Your task to perform on an android device: turn on improve location accuracy Image 0: 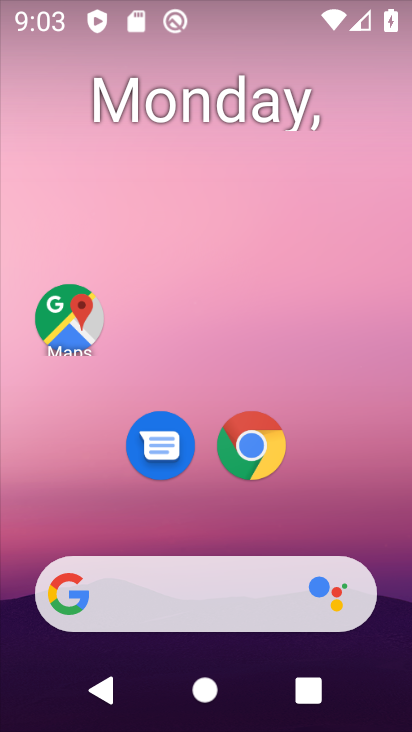
Step 0: drag from (396, 596) to (292, 39)
Your task to perform on an android device: turn on improve location accuracy Image 1: 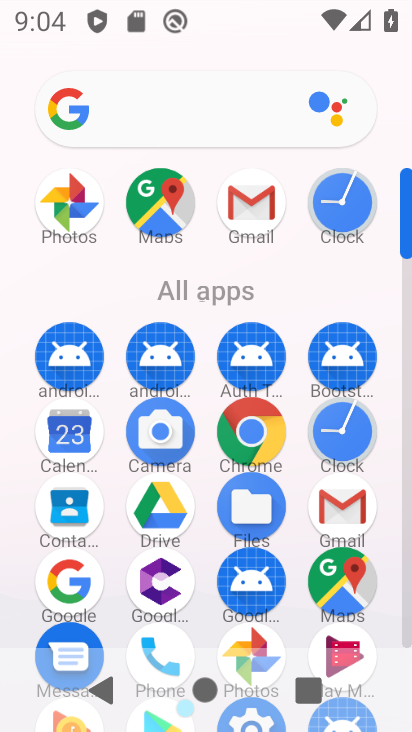
Step 1: drag from (296, 656) to (296, 176)
Your task to perform on an android device: turn on improve location accuracy Image 2: 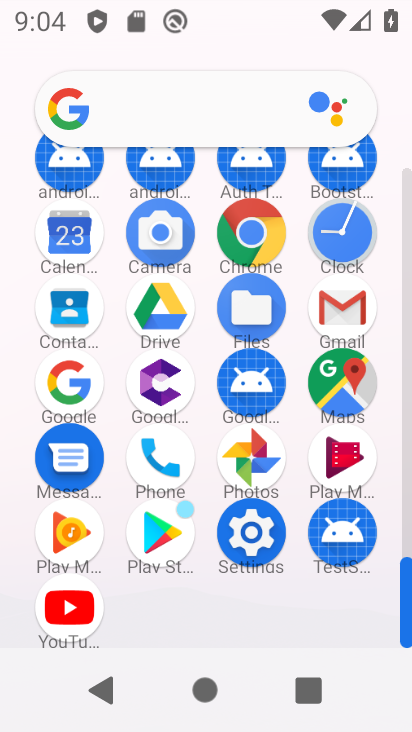
Step 2: click (247, 548)
Your task to perform on an android device: turn on improve location accuracy Image 3: 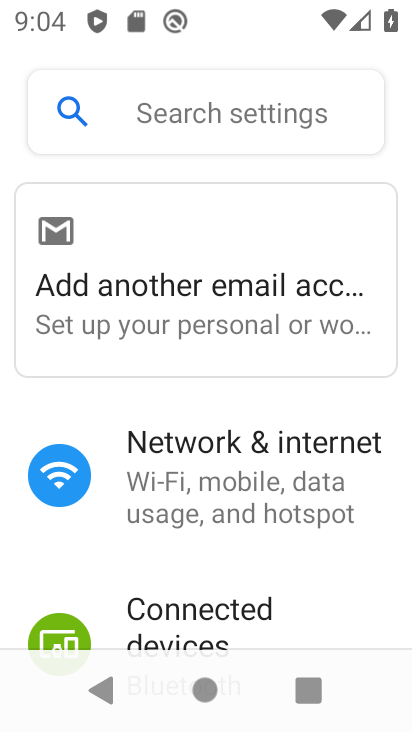
Step 3: drag from (169, 581) to (182, 91)
Your task to perform on an android device: turn on improve location accuracy Image 4: 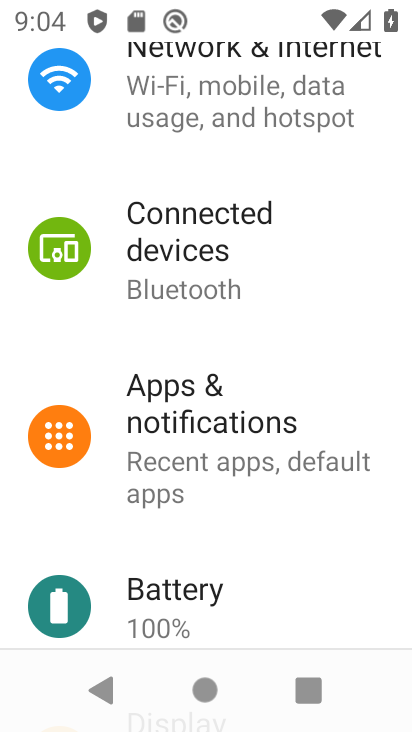
Step 4: drag from (205, 599) to (210, 113)
Your task to perform on an android device: turn on improve location accuracy Image 5: 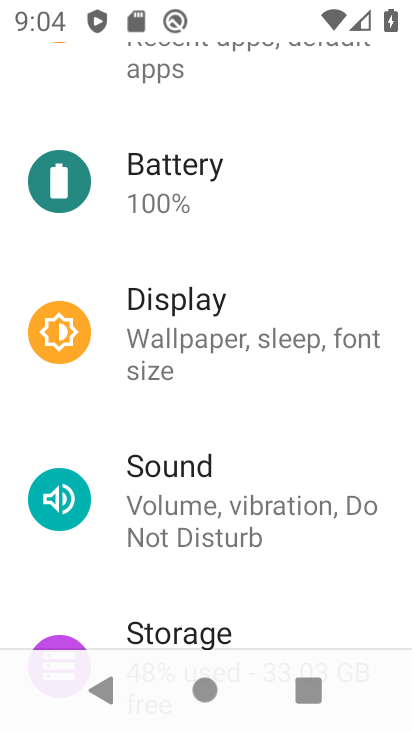
Step 5: drag from (170, 611) to (239, 130)
Your task to perform on an android device: turn on improve location accuracy Image 6: 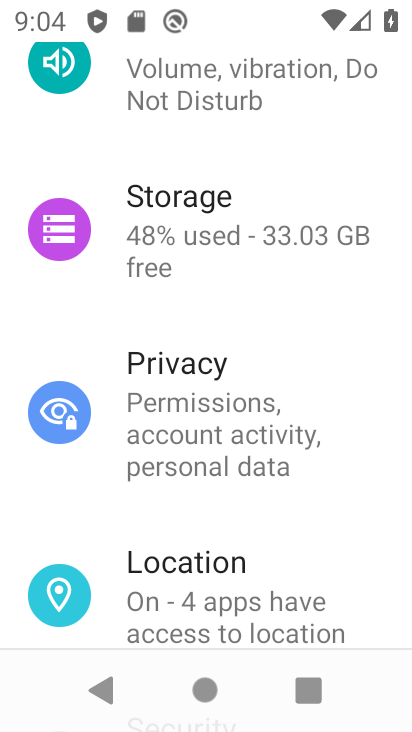
Step 6: click (254, 607)
Your task to perform on an android device: turn on improve location accuracy Image 7: 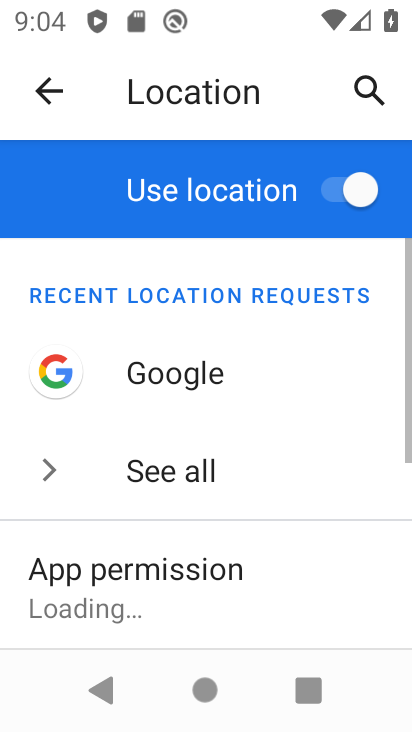
Step 7: drag from (202, 634) to (246, 110)
Your task to perform on an android device: turn on improve location accuracy Image 8: 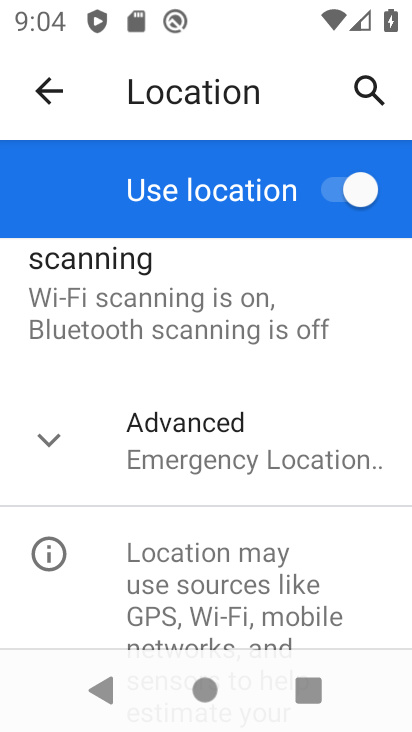
Step 8: click (169, 462)
Your task to perform on an android device: turn on improve location accuracy Image 9: 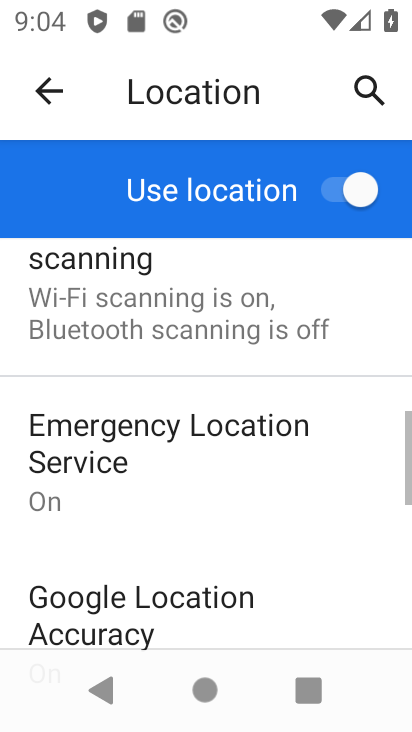
Step 9: drag from (148, 642) to (233, 320)
Your task to perform on an android device: turn on improve location accuracy Image 10: 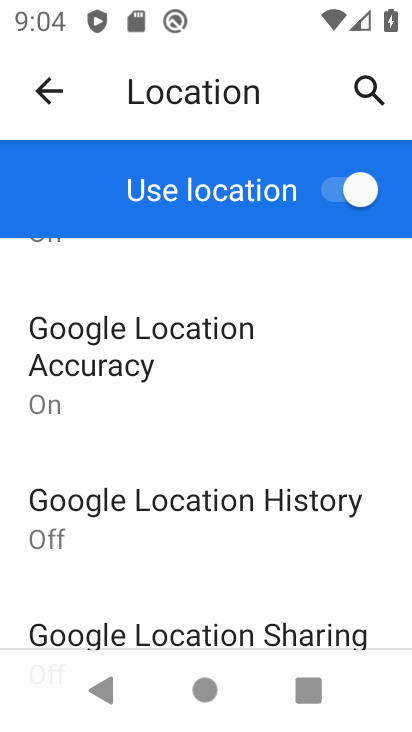
Step 10: click (181, 347)
Your task to perform on an android device: turn on improve location accuracy Image 11: 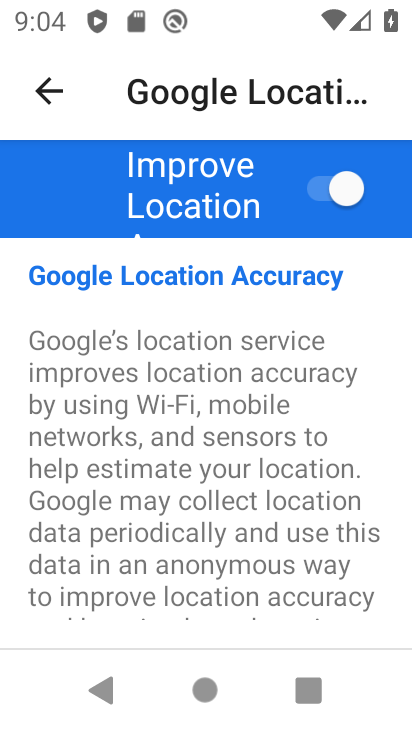
Step 11: task complete